Your task to perform on an android device: Go to Google maps Image 0: 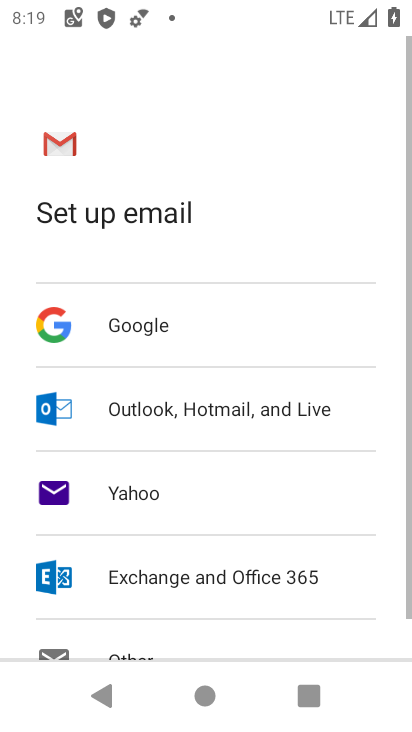
Step 0: press home button
Your task to perform on an android device: Go to Google maps Image 1: 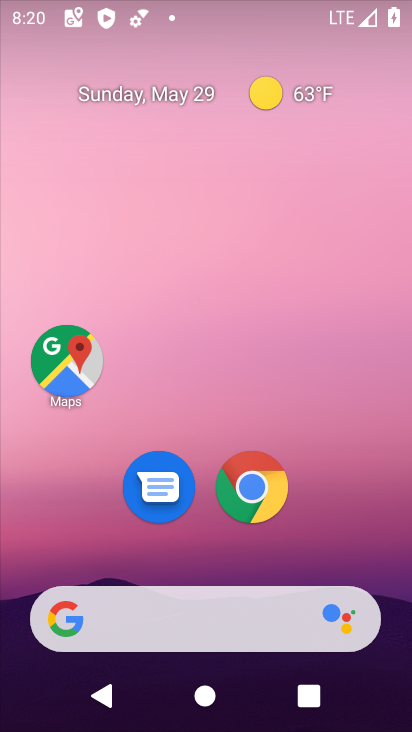
Step 1: drag from (198, 604) to (251, 213)
Your task to perform on an android device: Go to Google maps Image 2: 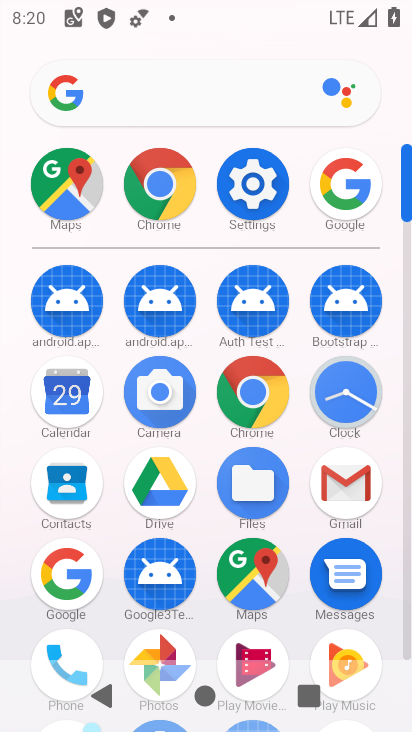
Step 2: click (256, 577)
Your task to perform on an android device: Go to Google maps Image 3: 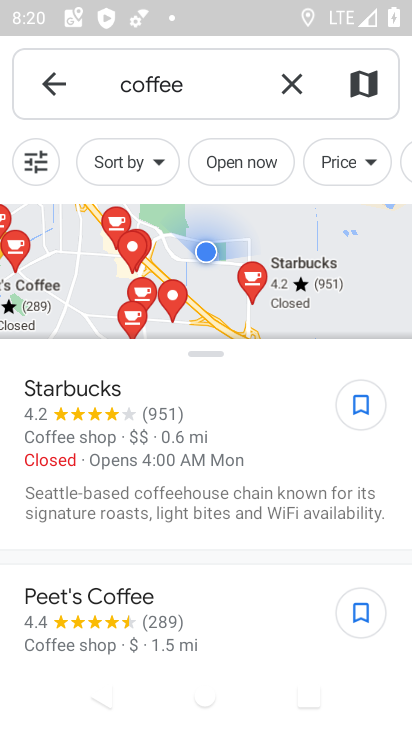
Step 3: task complete